Your task to perform on an android device: set the stopwatch Image 0: 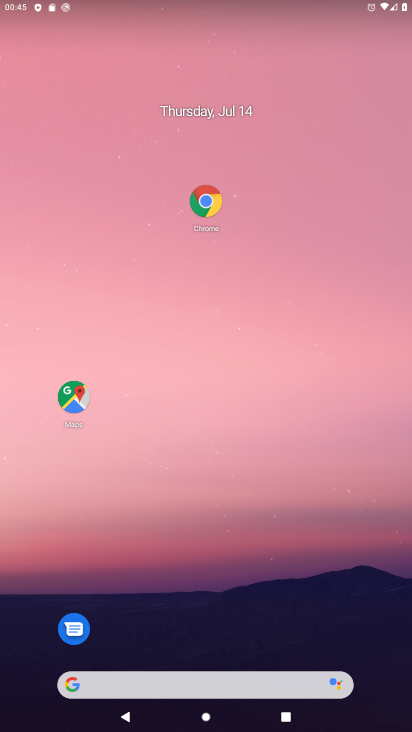
Step 0: drag from (235, 661) to (251, 32)
Your task to perform on an android device: set the stopwatch Image 1: 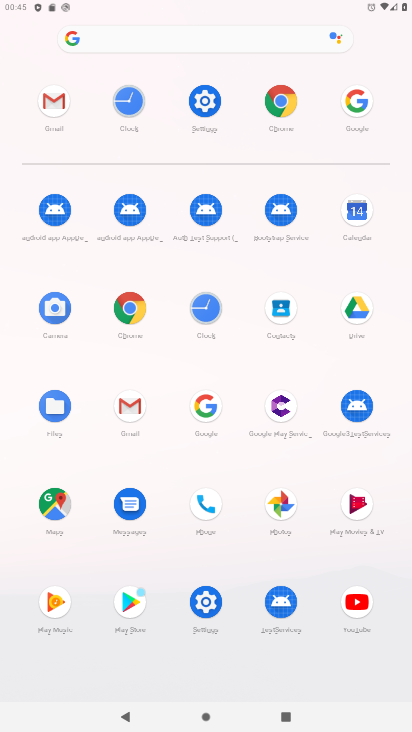
Step 1: click (205, 312)
Your task to perform on an android device: set the stopwatch Image 2: 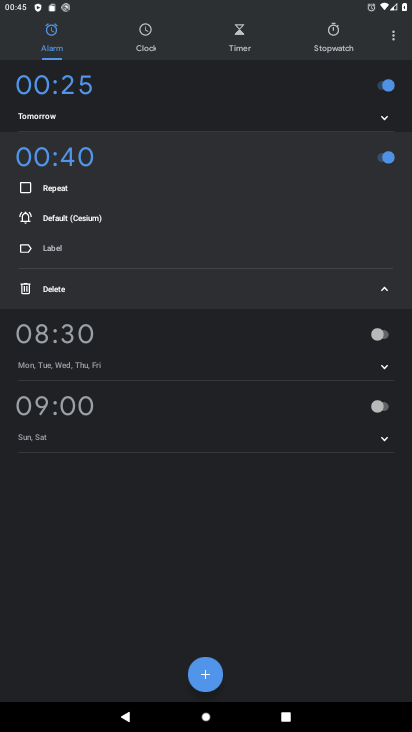
Step 2: click (329, 40)
Your task to perform on an android device: set the stopwatch Image 3: 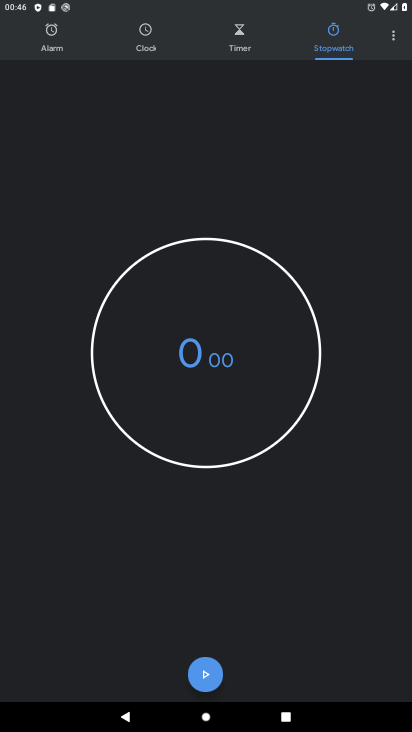
Step 3: click (212, 681)
Your task to perform on an android device: set the stopwatch Image 4: 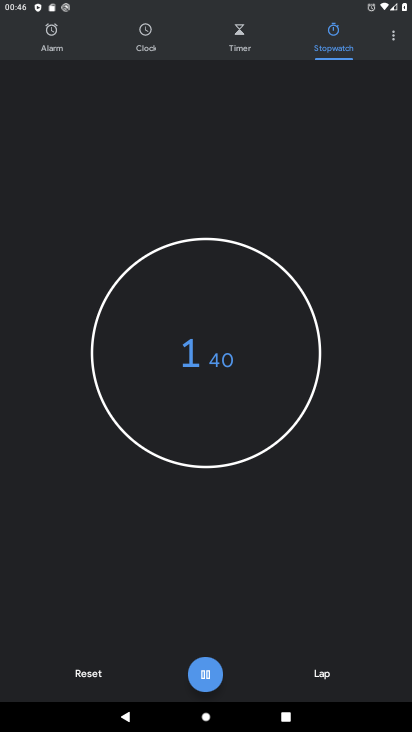
Step 4: task complete